Your task to perform on an android device: Clear the shopping cart on target.com. Search for usb-c to usb-a on target.com, select the first entry, add it to the cart, then select checkout. Image 0: 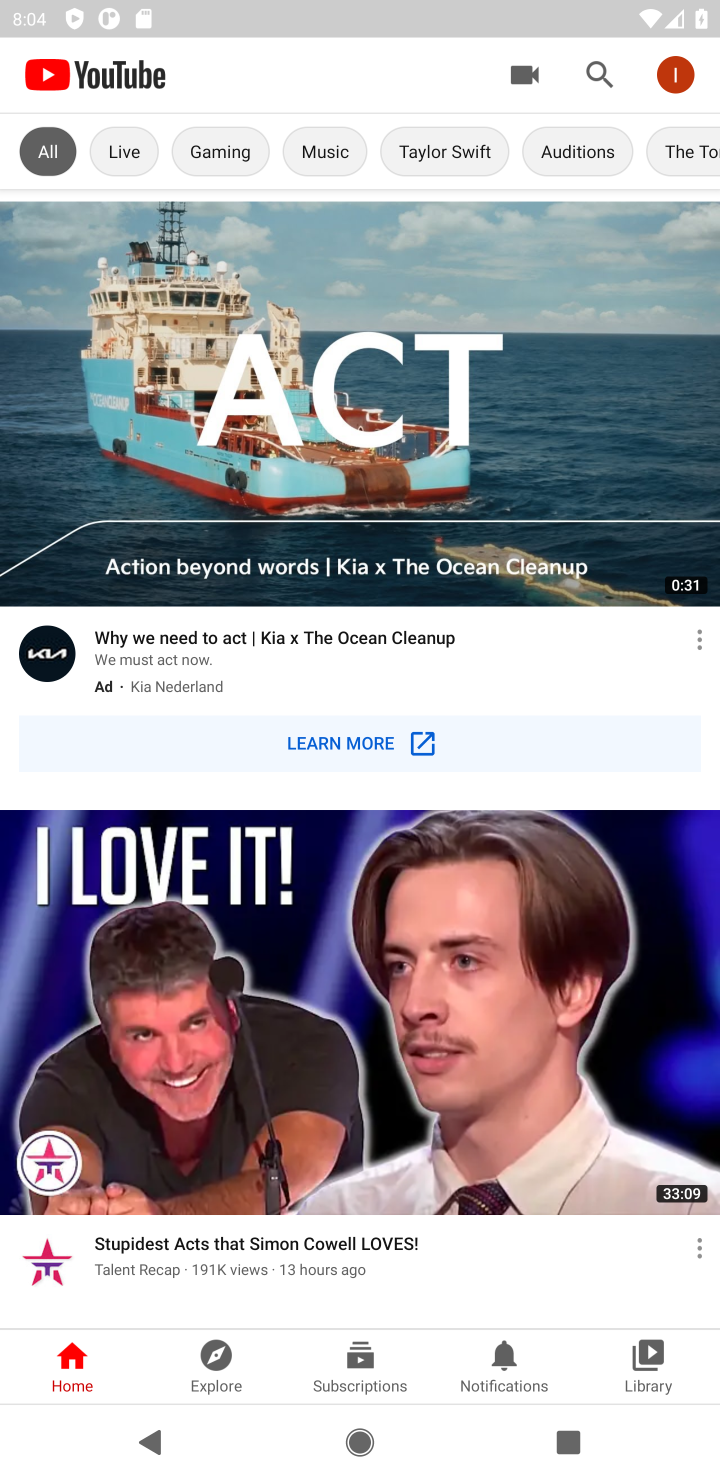
Step 0: press home button
Your task to perform on an android device: Clear the shopping cart on target.com. Search for usb-c to usb-a on target.com, select the first entry, add it to the cart, then select checkout. Image 1: 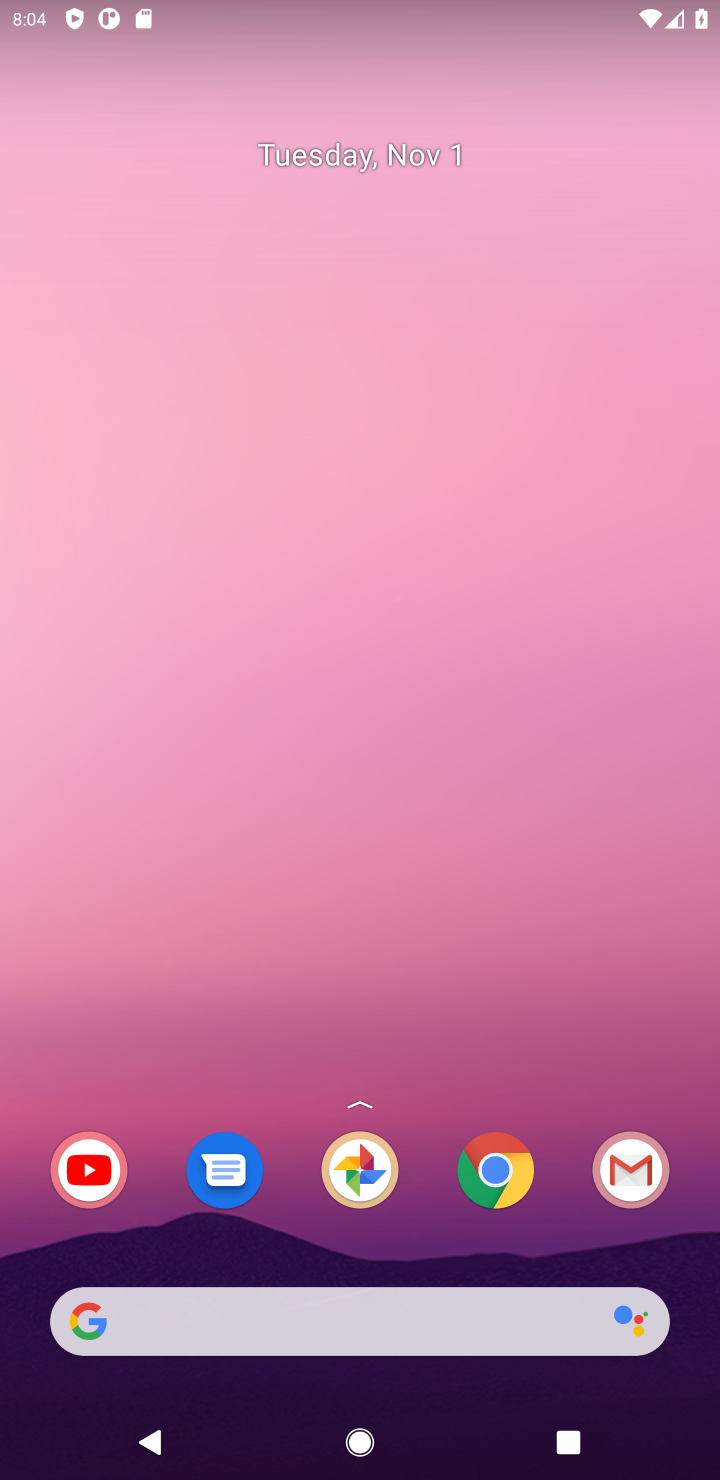
Step 1: click (495, 1168)
Your task to perform on an android device: Clear the shopping cart on target.com. Search for usb-c to usb-a on target.com, select the first entry, add it to the cart, then select checkout. Image 2: 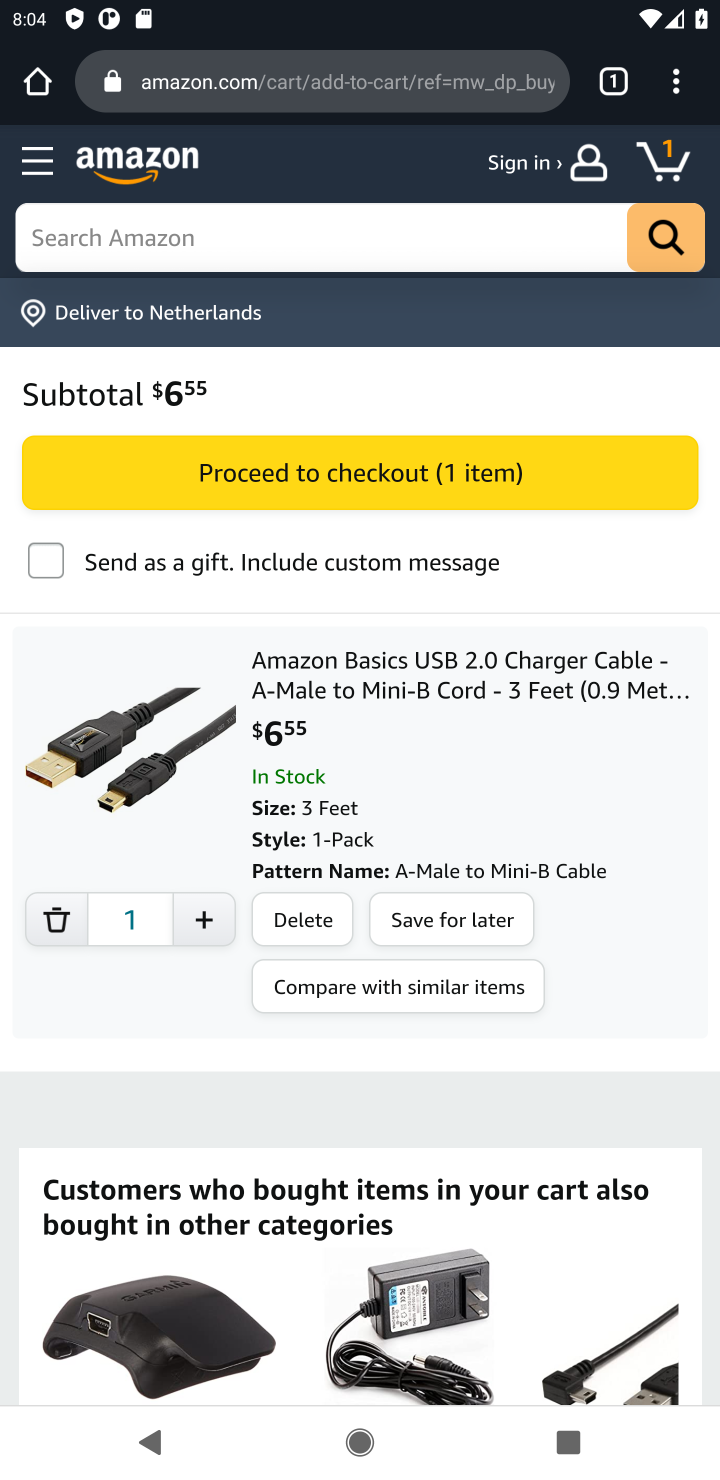
Step 2: click (390, 79)
Your task to perform on an android device: Clear the shopping cart on target.com. Search for usb-c to usb-a on target.com, select the first entry, add it to the cart, then select checkout. Image 3: 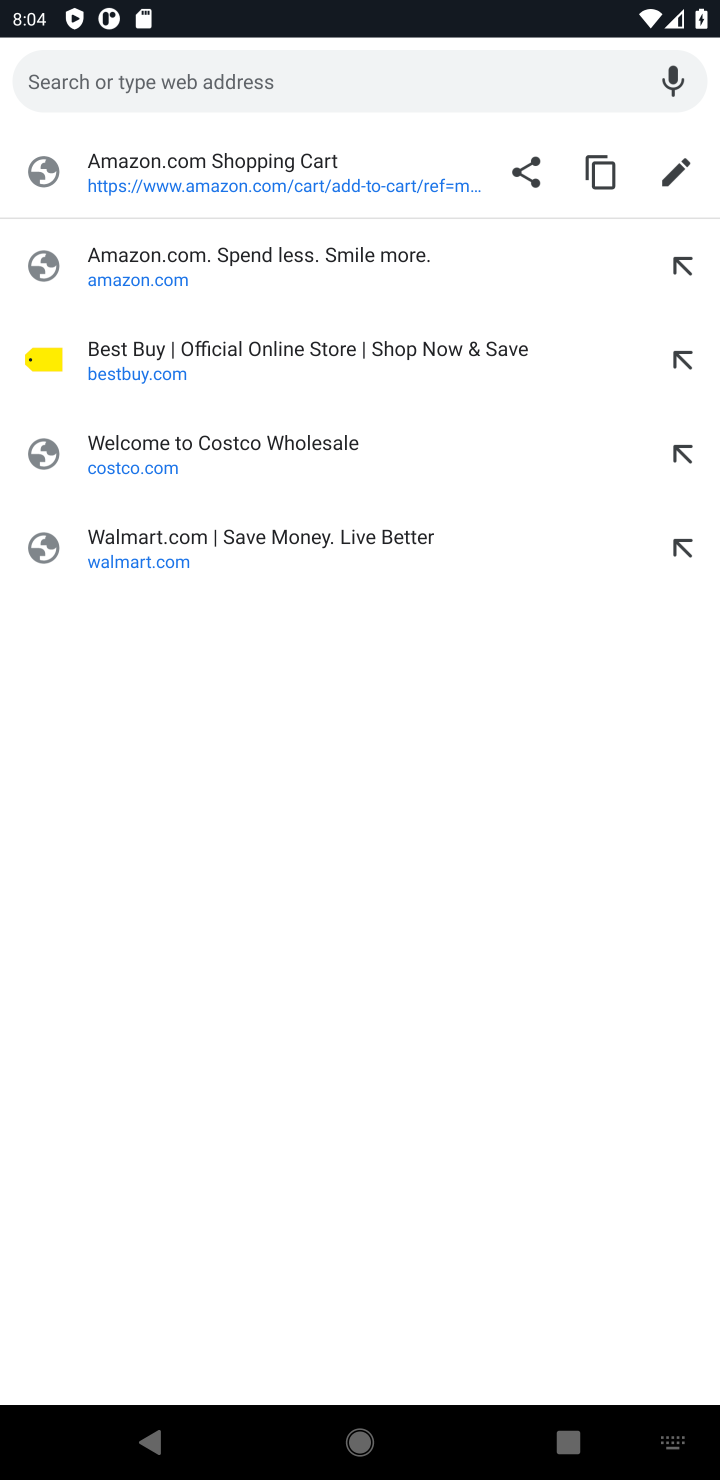
Step 3: type "target.com"
Your task to perform on an android device: Clear the shopping cart on target.com. Search for usb-c to usb-a on target.com, select the first entry, add it to the cart, then select checkout. Image 4: 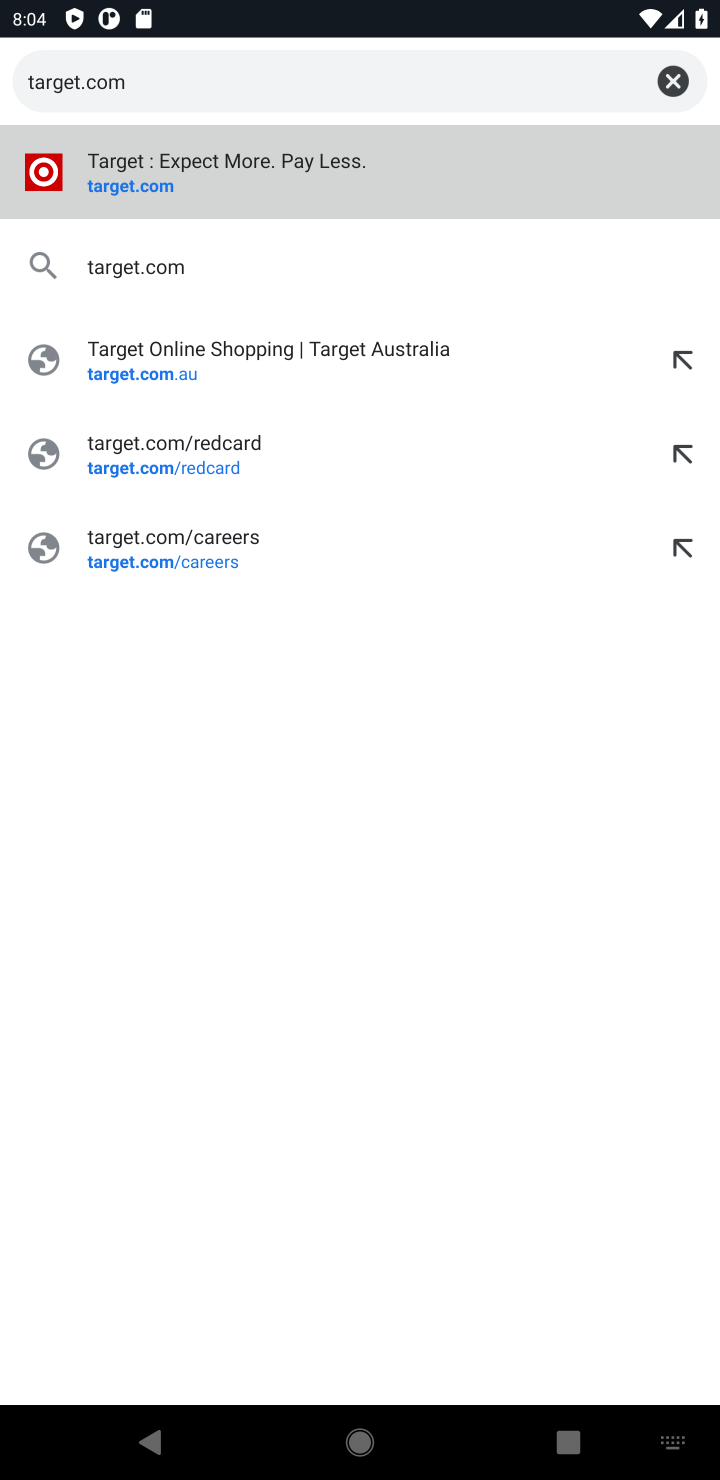
Step 4: press enter
Your task to perform on an android device: Clear the shopping cart on target.com. Search for usb-c to usb-a on target.com, select the first entry, add it to the cart, then select checkout. Image 5: 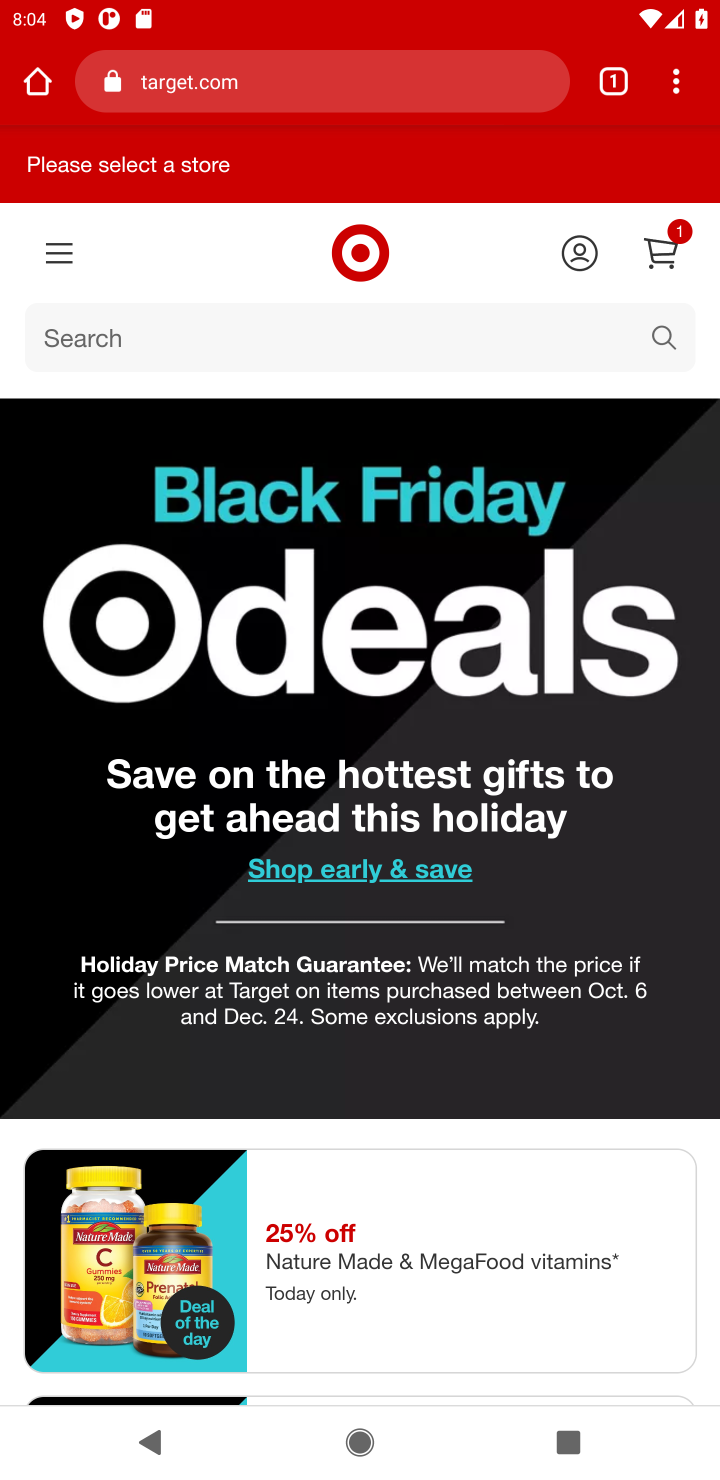
Step 5: drag from (456, 1274) to (523, 1256)
Your task to perform on an android device: Clear the shopping cart on target.com. Search for usb-c to usb-a on target.com, select the first entry, add it to the cart, then select checkout. Image 6: 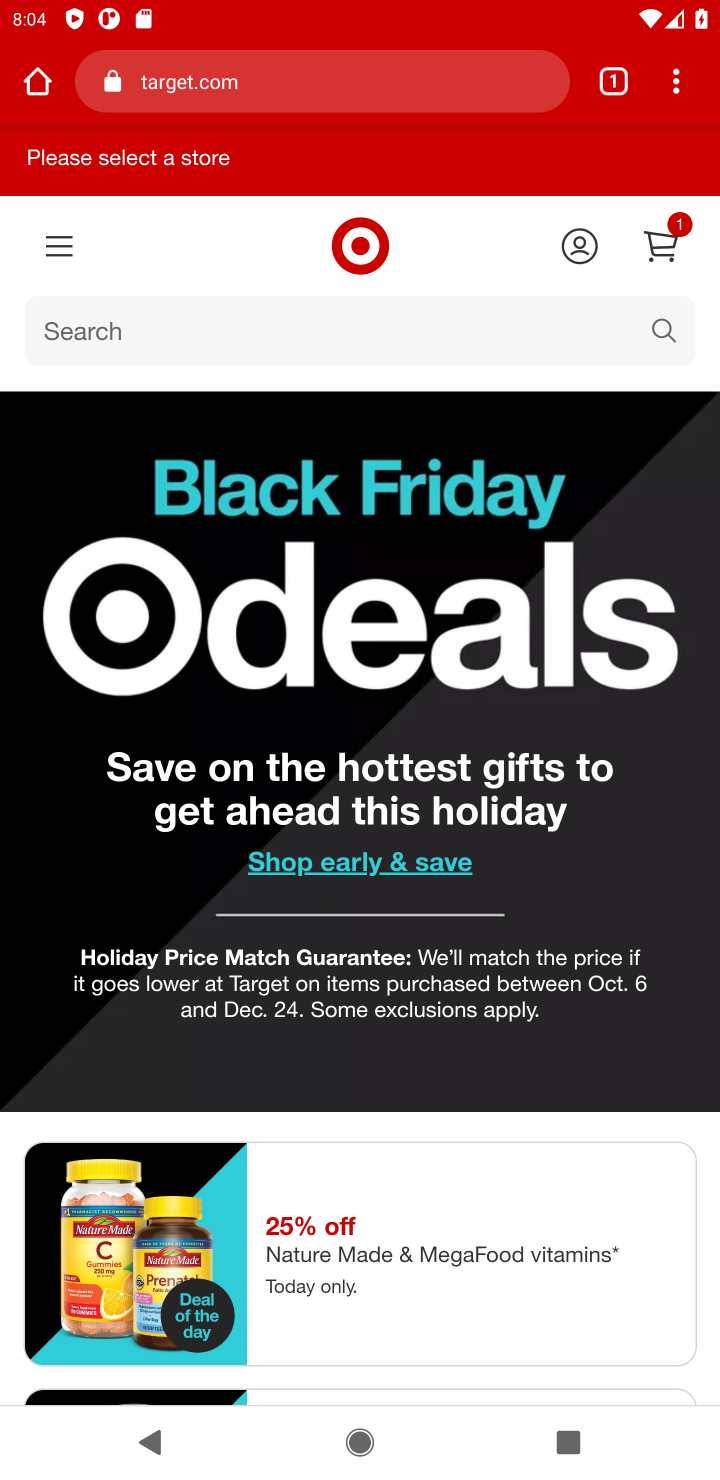
Step 6: click (650, 241)
Your task to perform on an android device: Clear the shopping cart on target.com. Search for usb-c to usb-a on target.com, select the first entry, add it to the cart, then select checkout. Image 7: 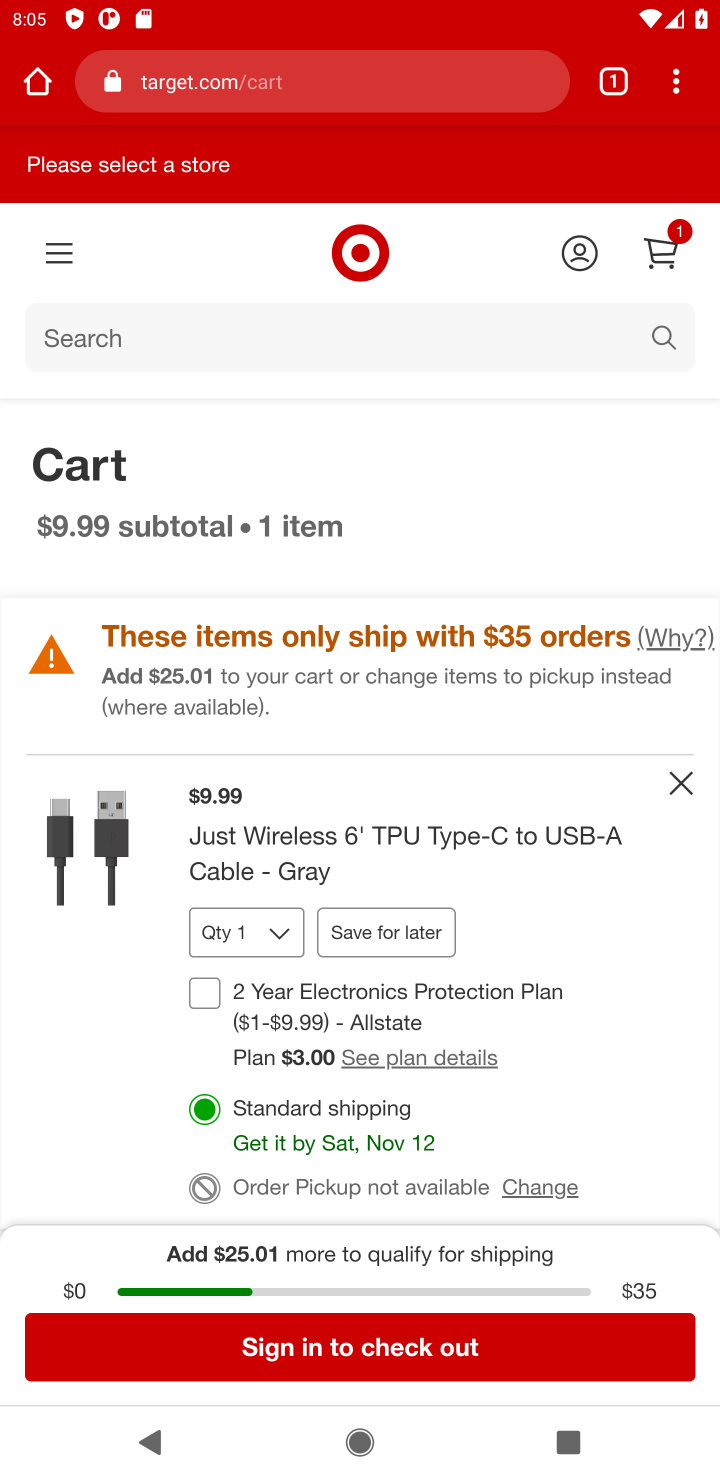
Step 7: click (681, 778)
Your task to perform on an android device: Clear the shopping cart on target.com. Search for usb-c to usb-a on target.com, select the first entry, add it to the cart, then select checkout. Image 8: 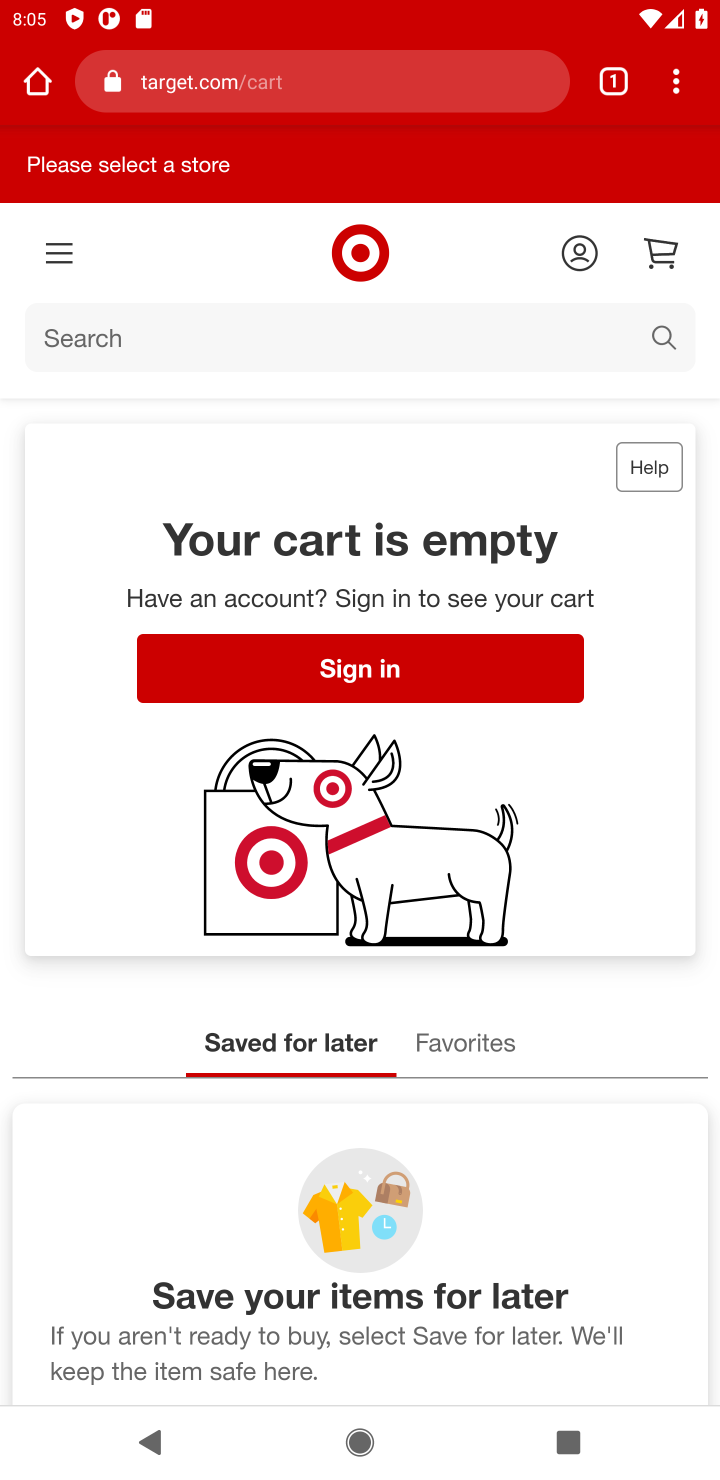
Step 8: click (245, 338)
Your task to perform on an android device: Clear the shopping cart on target.com. Search for usb-c to usb-a on target.com, select the first entry, add it to the cart, then select checkout. Image 9: 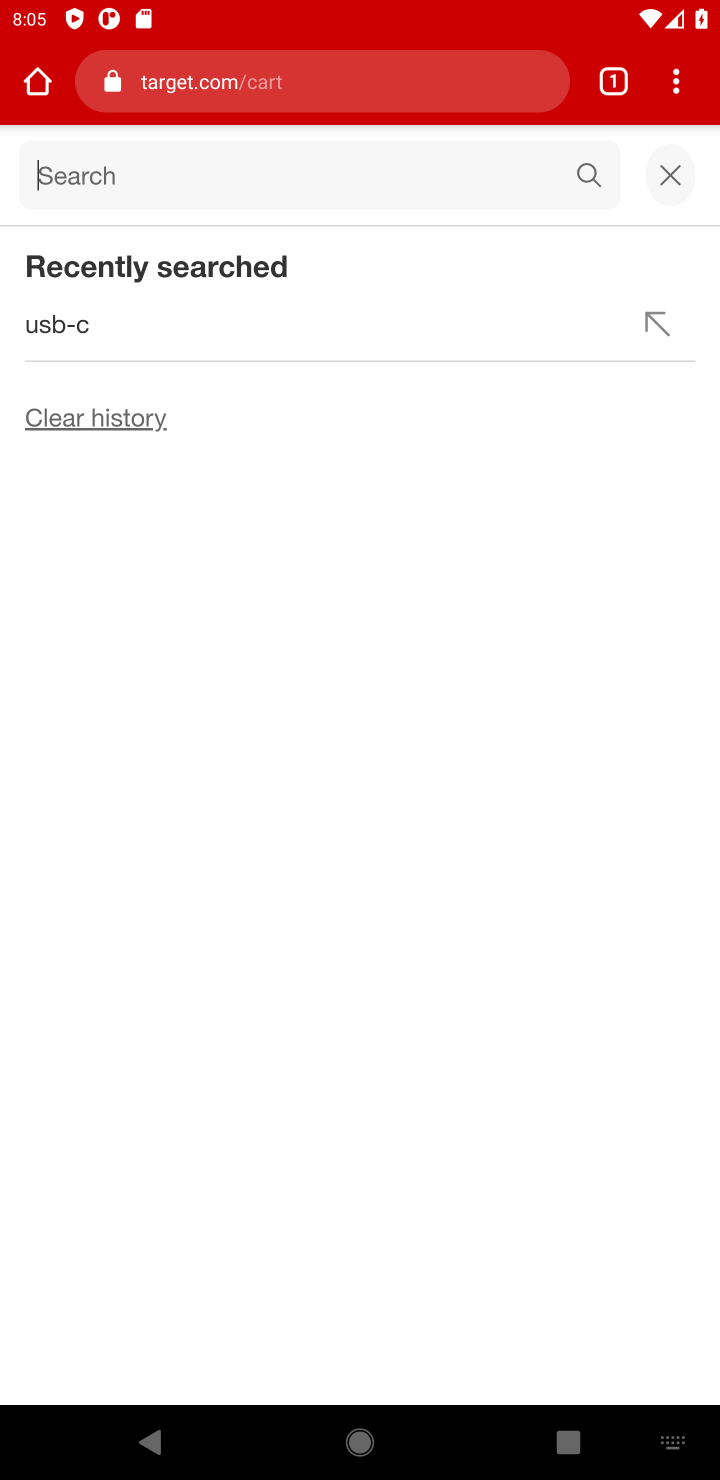
Step 9: type "usb-c to usb-a"
Your task to perform on an android device: Clear the shopping cart on target.com. Search for usb-c to usb-a on target.com, select the first entry, add it to the cart, then select checkout. Image 10: 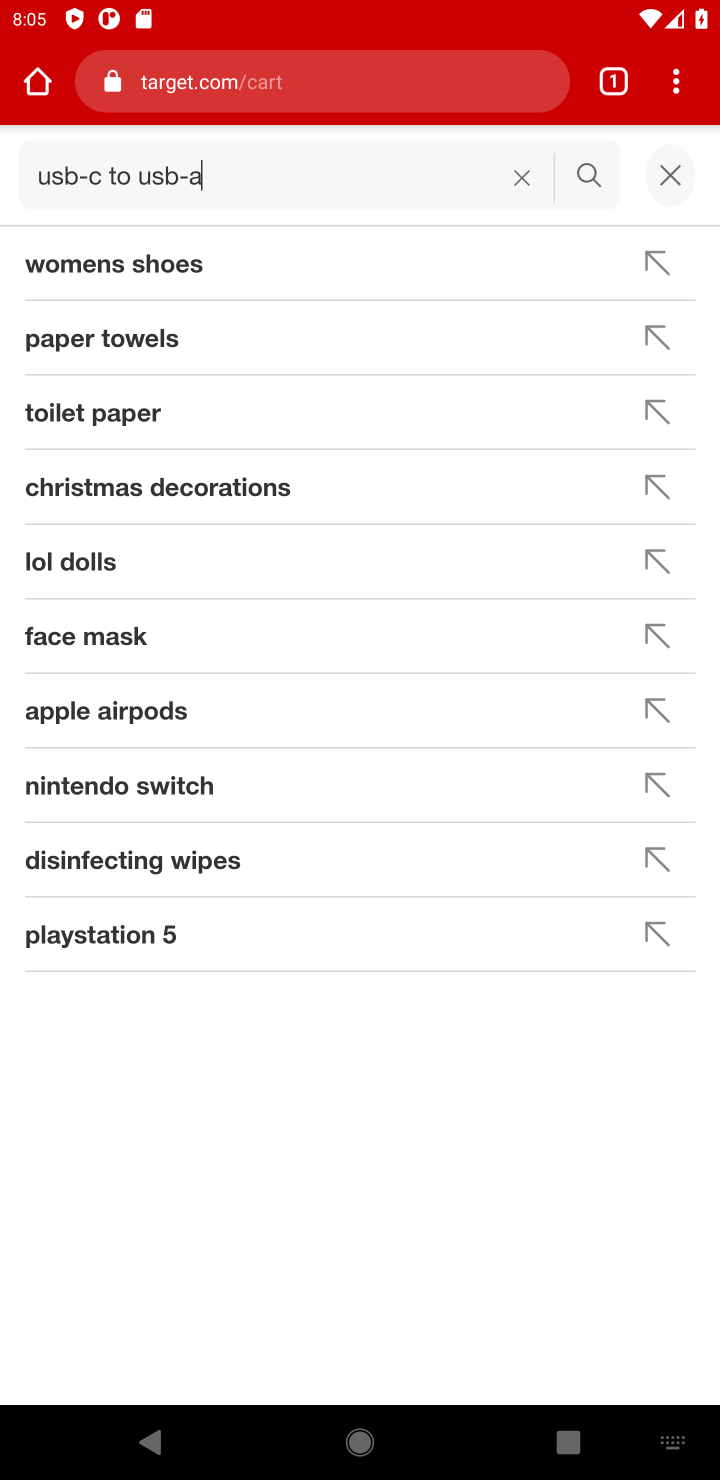
Step 10: type ""
Your task to perform on an android device: Clear the shopping cart on target.com. Search for usb-c to usb-a on target.com, select the first entry, add it to the cart, then select checkout. Image 11: 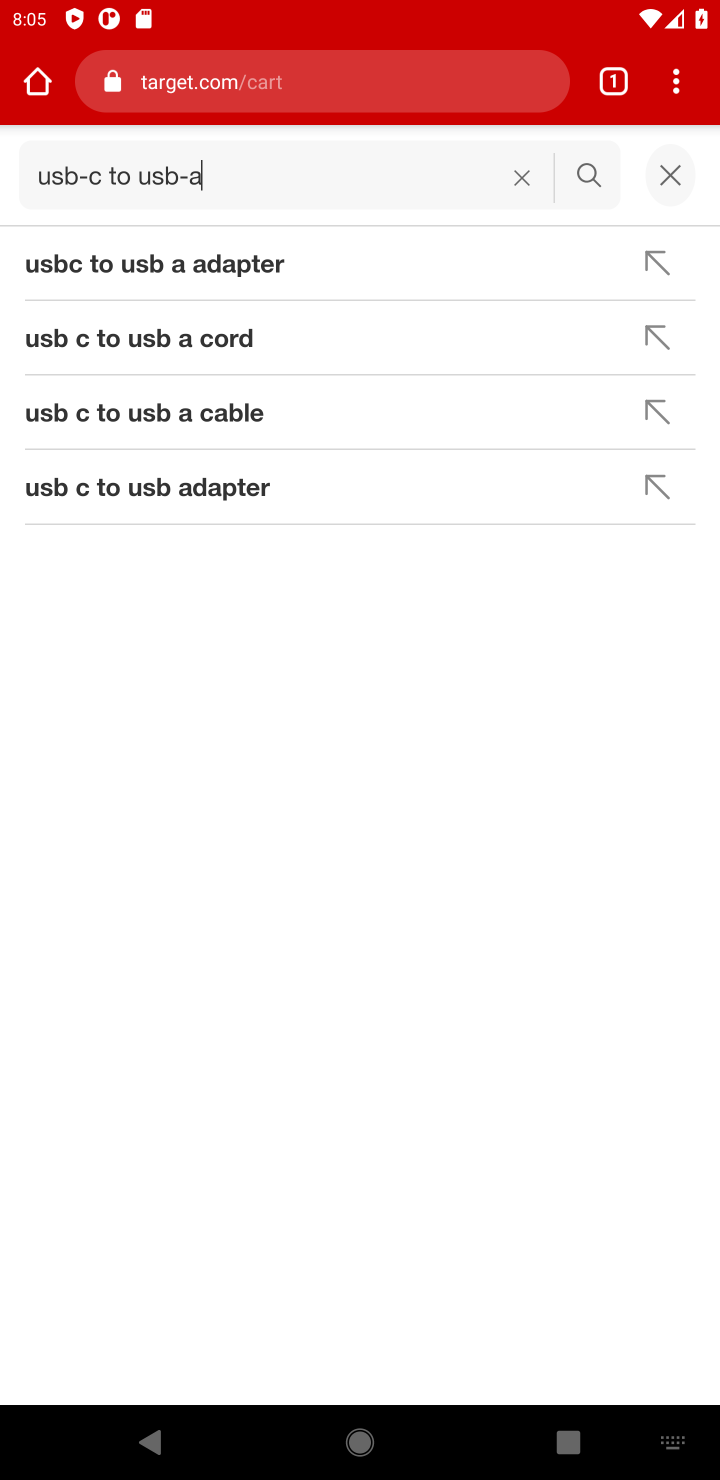
Step 11: press enter
Your task to perform on an android device: Clear the shopping cart on target.com. Search for usb-c to usb-a on target.com, select the first entry, add it to the cart, then select checkout. Image 12: 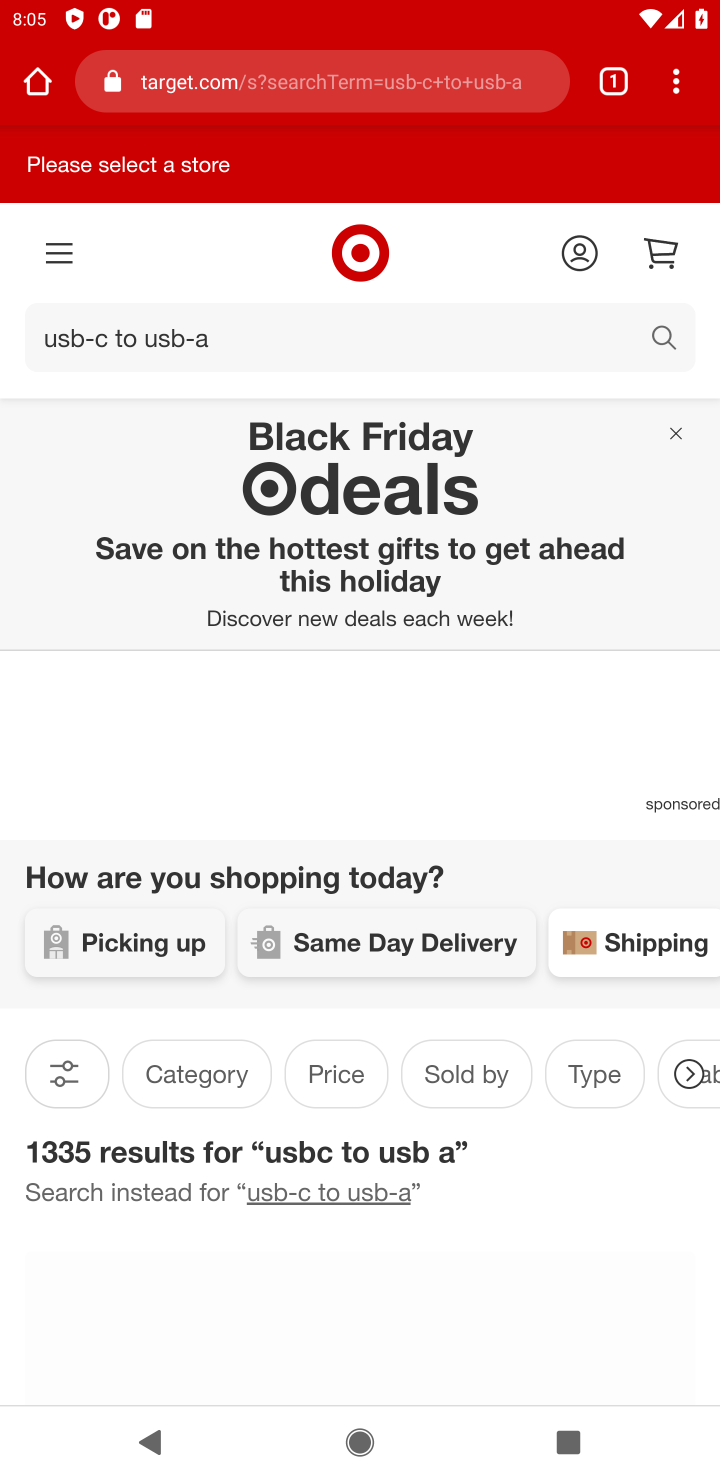
Step 12: drag from (484, 1190) to (463, 426)
Your task to perform on an android device: Clear the shopping cart on target.com. Search for usb-c to usb-a on target.com, select the first entry, add it to the cart, then select checkout. Image 13: 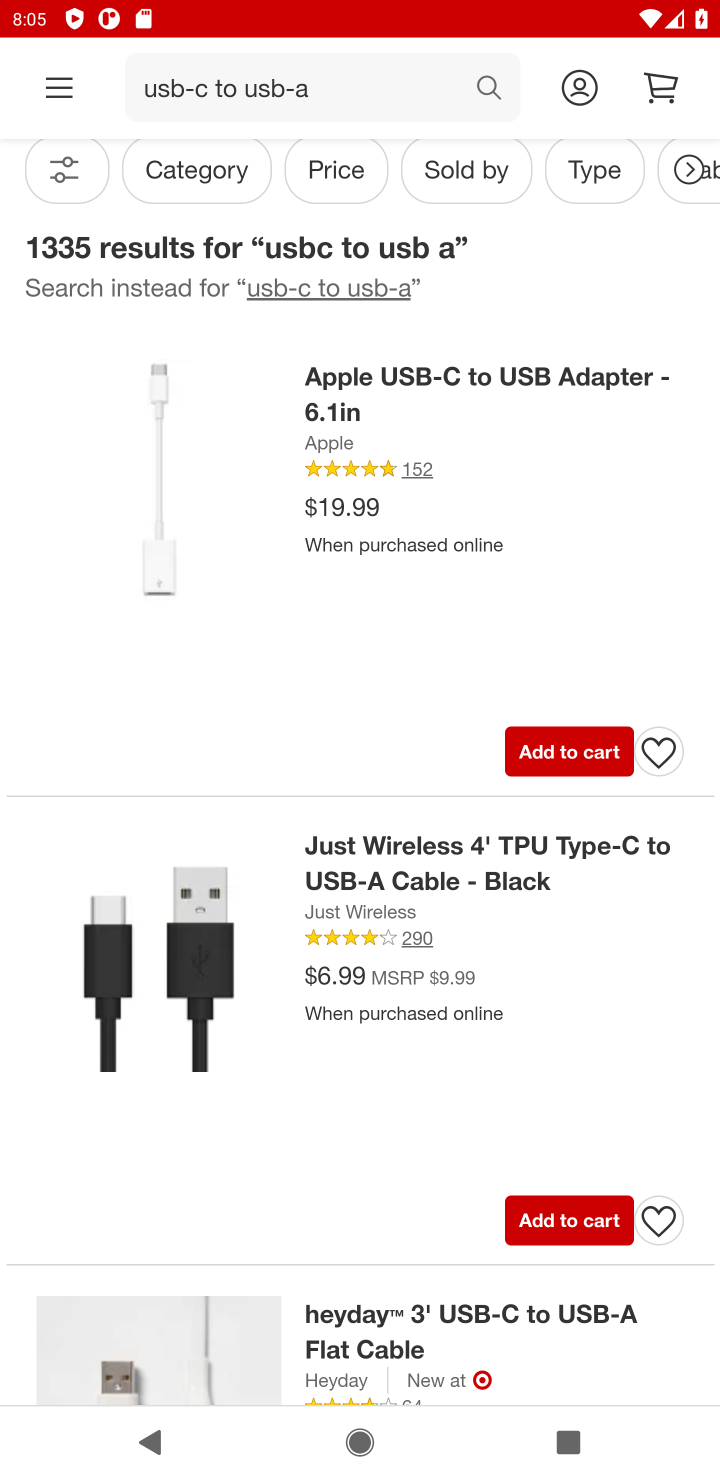
Step 13: click (465, 982)
Your task to perform on an android device: Clear the shopping cart on target.com. Search for usb-c to usb-a on target.com, select the first entry, add it to the cart, then select checkout. Image 14: 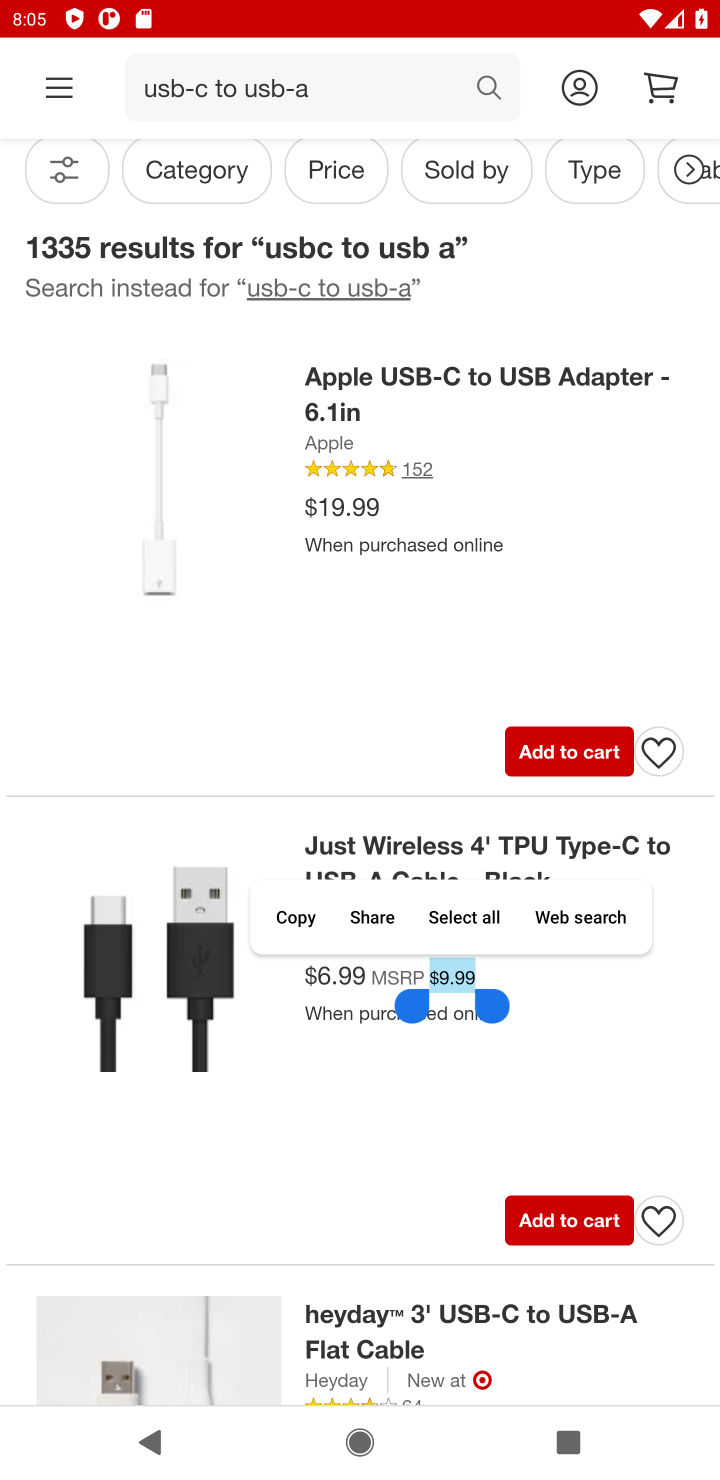
Step 14: drag from (571, 748) to (576, 467)
Your task to perform on an android device: Clear the shopping cart on target.com. Search for usb-c to usb-a on target.com, select the first entry, add it to the cart, then select checkout. Image 15: 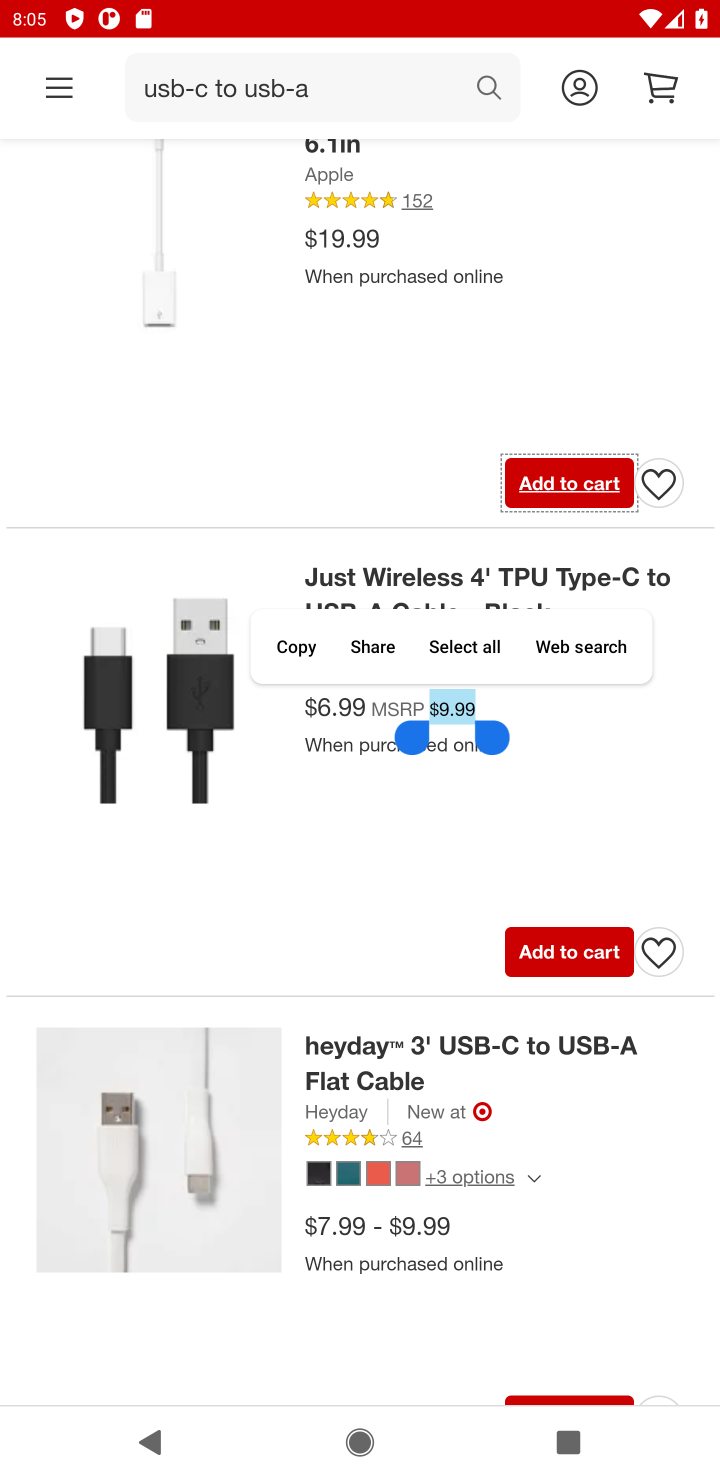
Step 15: drag from (349, 135) to (419, 450)
Your task to perform on an android device: Clear the shopping cart on target.com. Search for usb-c to usb-a on target.com, select the first entry, add it to the cart, then select checkout. Image 16: 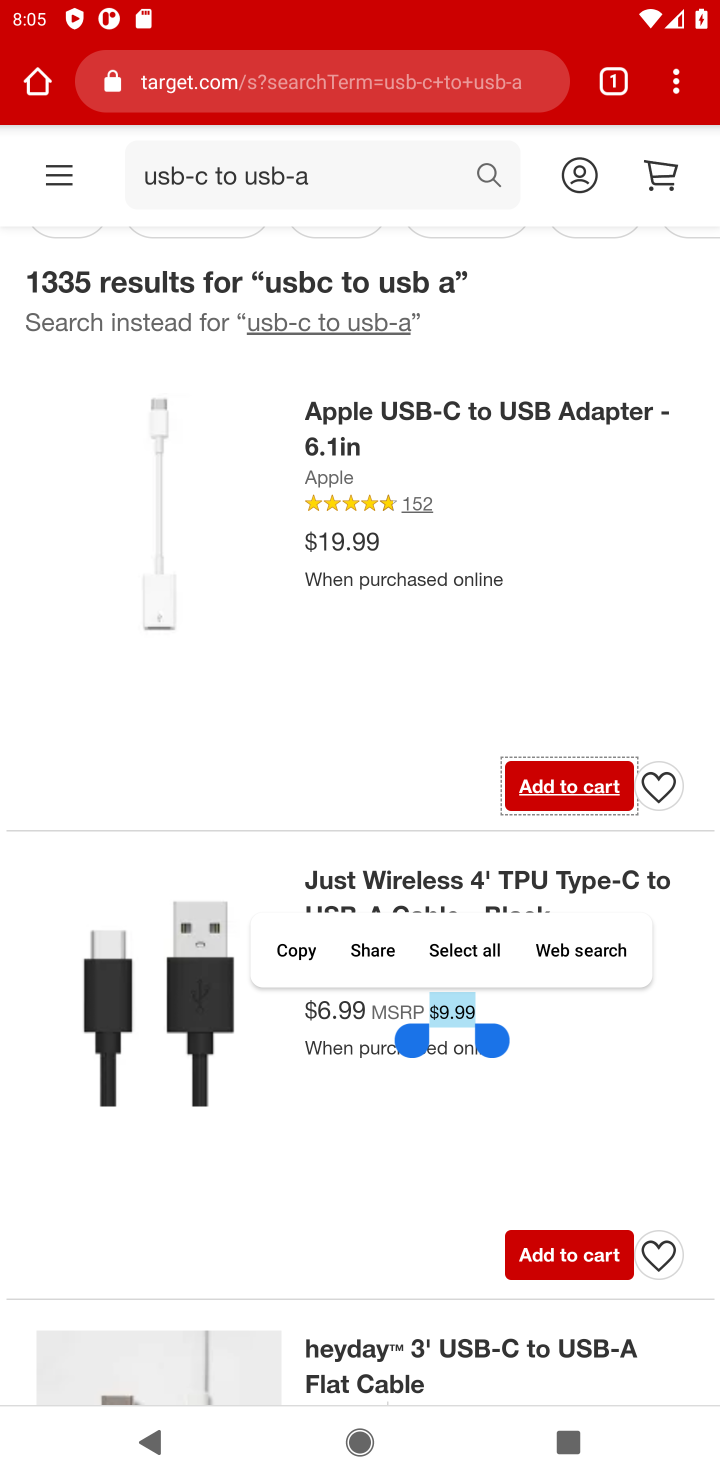
Step 16: click (346, 451)
Your task to perform on an android device: Clear the shopping cart on target.com. Search for usb-c to usb-a on target.com, select the first entry, add it to the cart, then select checkout. Image 17: 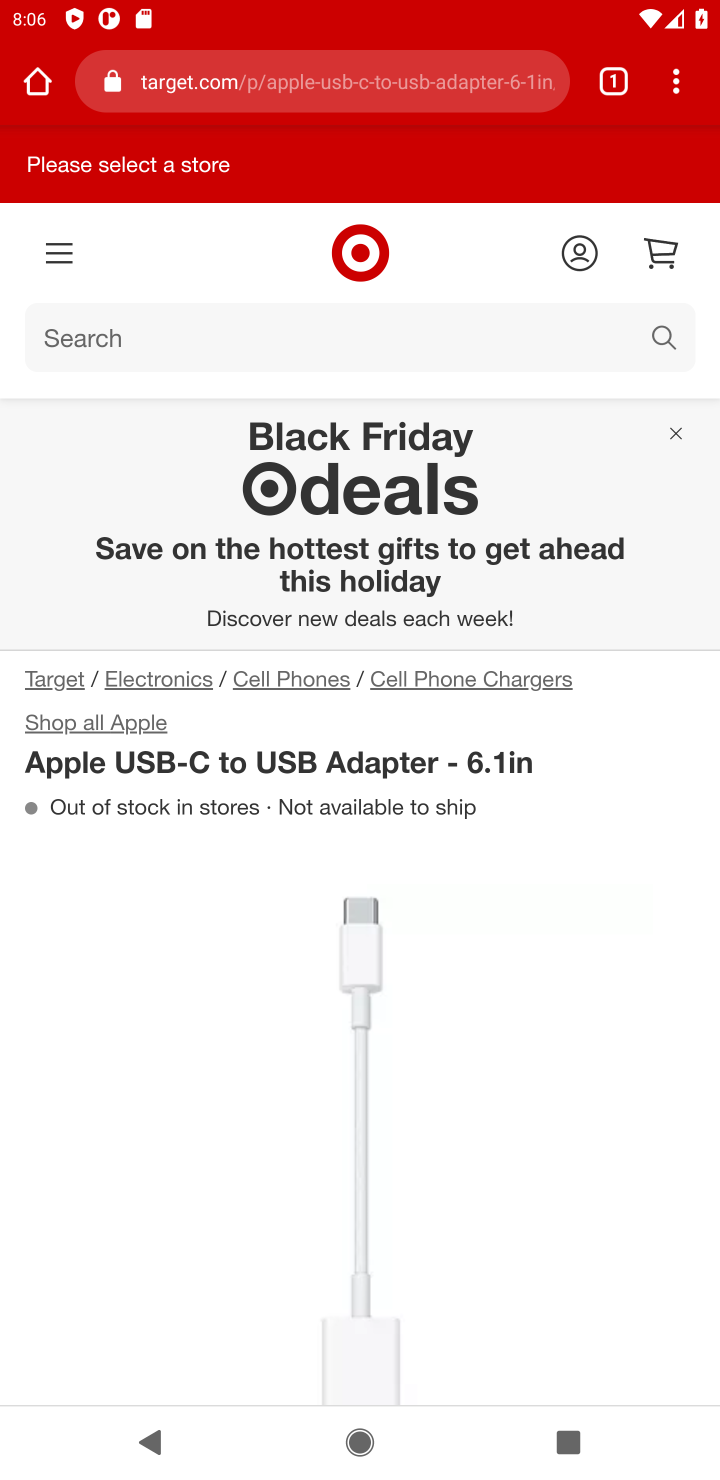
Step 17: drag from (514, 1132) to (464, 406)
Your task to perform on an android device: Clear the shopping cart on target.com. Search for usb-c to usb-a on target.com, select the first entry, add it to the cart, then select checkout. Image 18: 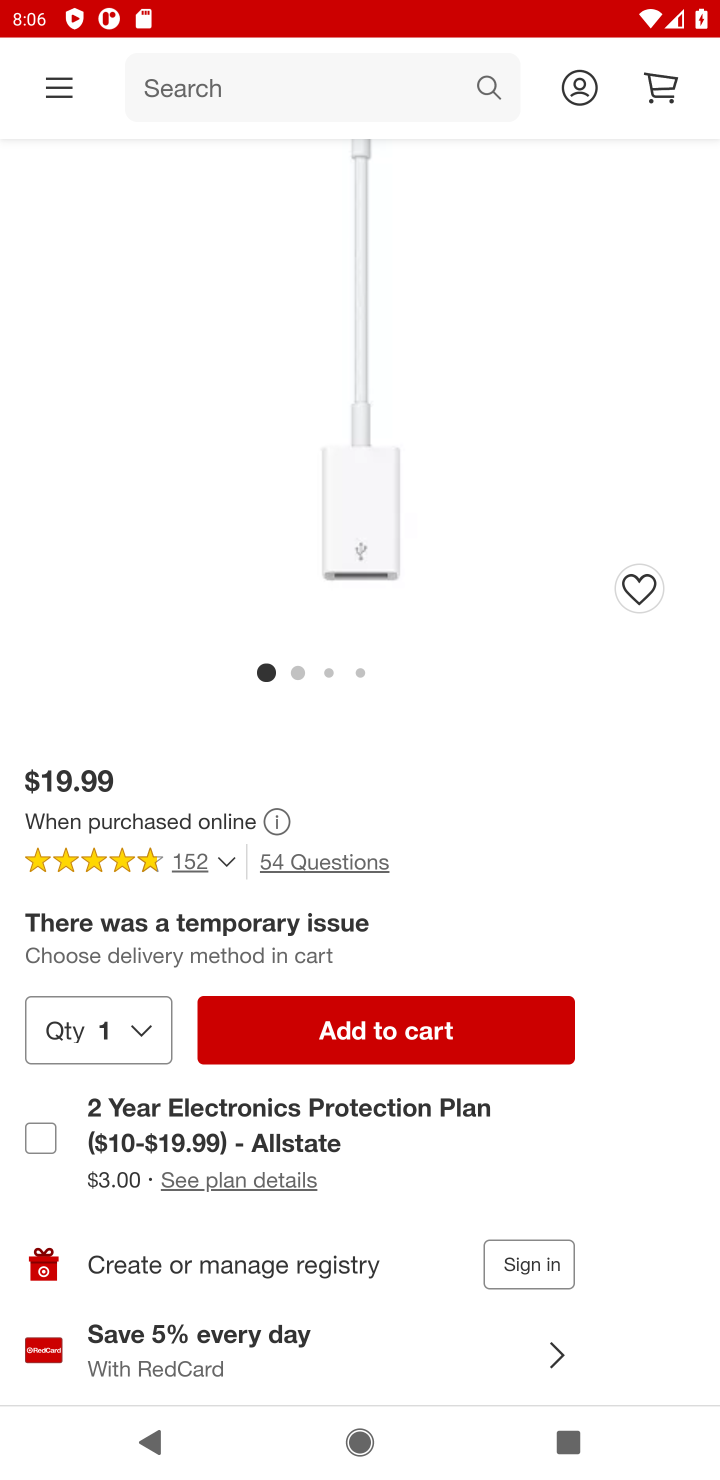
Step 18: click (416, 1016)
Your task to perform on an android device: Clear the shopping cart on target.com. Search for usb-c to usb-a on target.com, select the first entry, add it to the cart, then select checkout. Image 19: 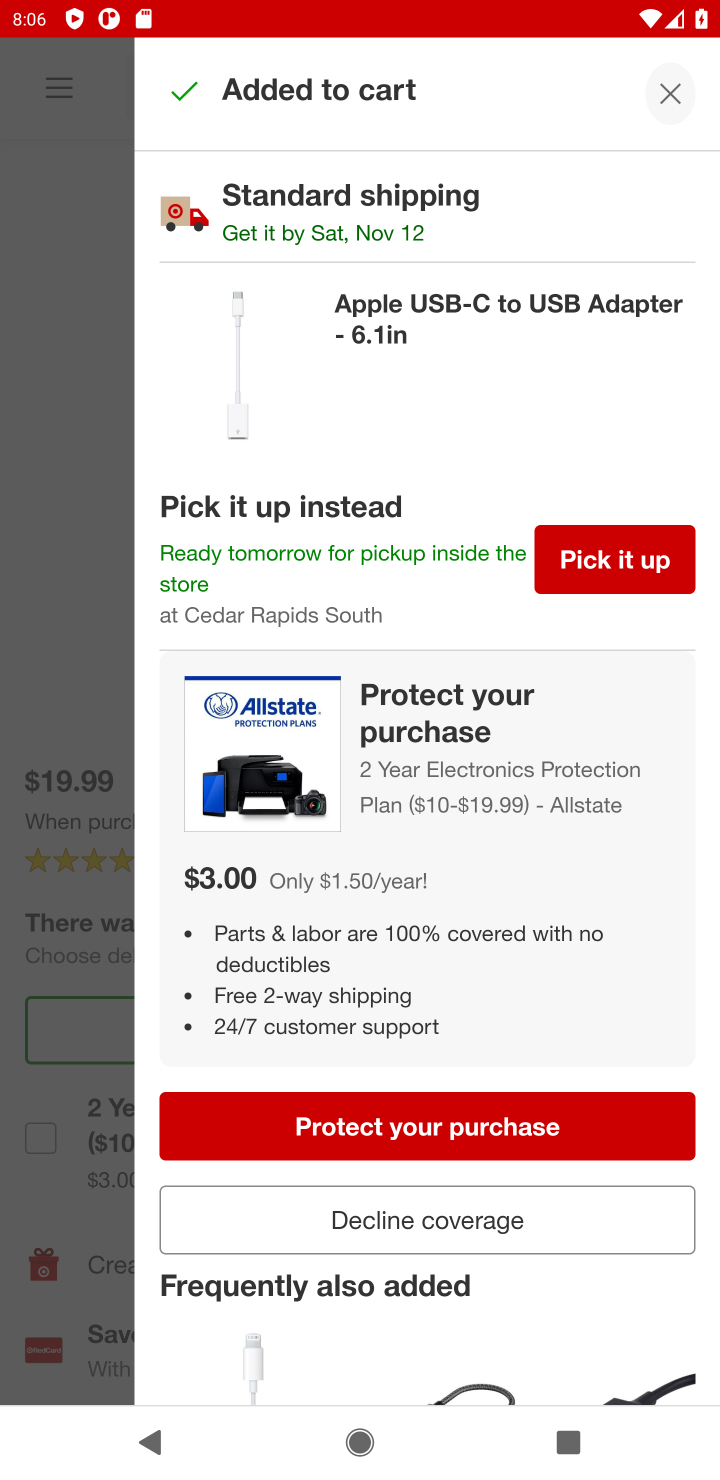
Step 19: click (479, 1235)
Your task to perform on an android device: Clear the shopping cart on target.com. Search for usb-c to usb-a on target.com, select the first entry, add it to the cart, then select checkout. Image 20: 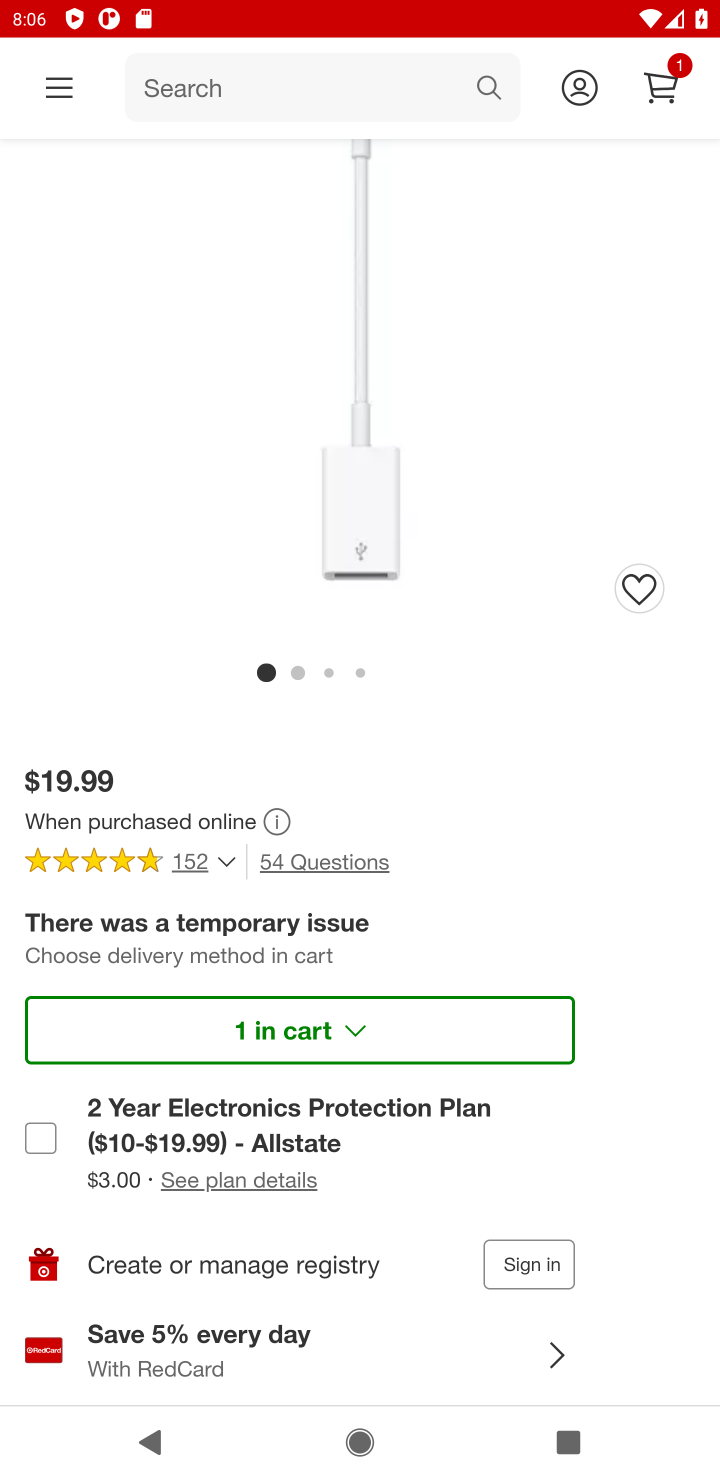
Step 20: click (665, 86)
Your task to perform on an android device: Clear the shopping cart on target.com. Search for usb-c to usb-a on target.com, select the first entry, add it to the cart, then select checkout. Image 21: 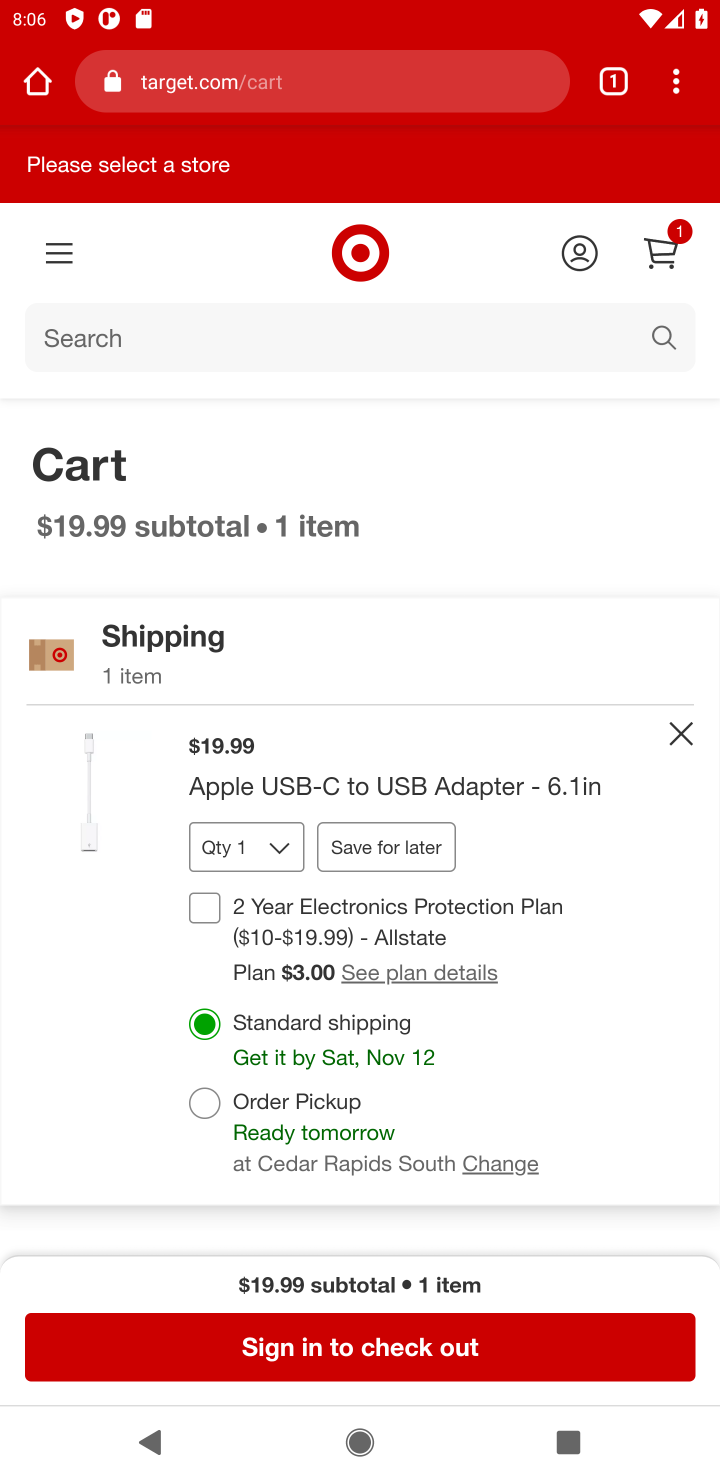
Step 21: drag from (323, 882) to (325, 770)
Your task to perform on an android device: Clear the shopping cart on target.com. Search for usb-c to usb-a on target.com, select the first entry, add it to the cart, then select checkout. Image 22: 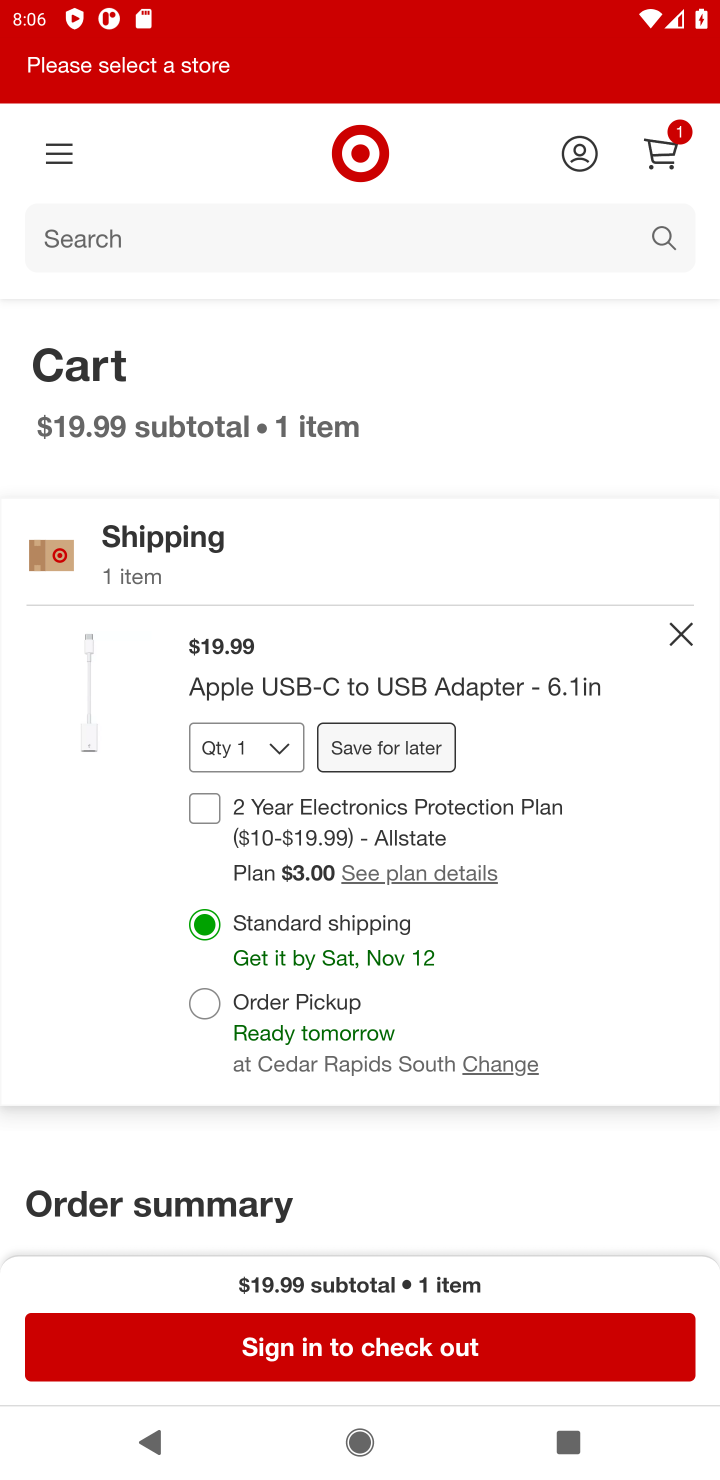
Step 22: click (359, 1334)
Your task to perform on an android device: Clear the shopping cart on target.com. Search for usb-c to usb-a on target.com, select the first entry, add it to the cart, then select checkout. Image 23: 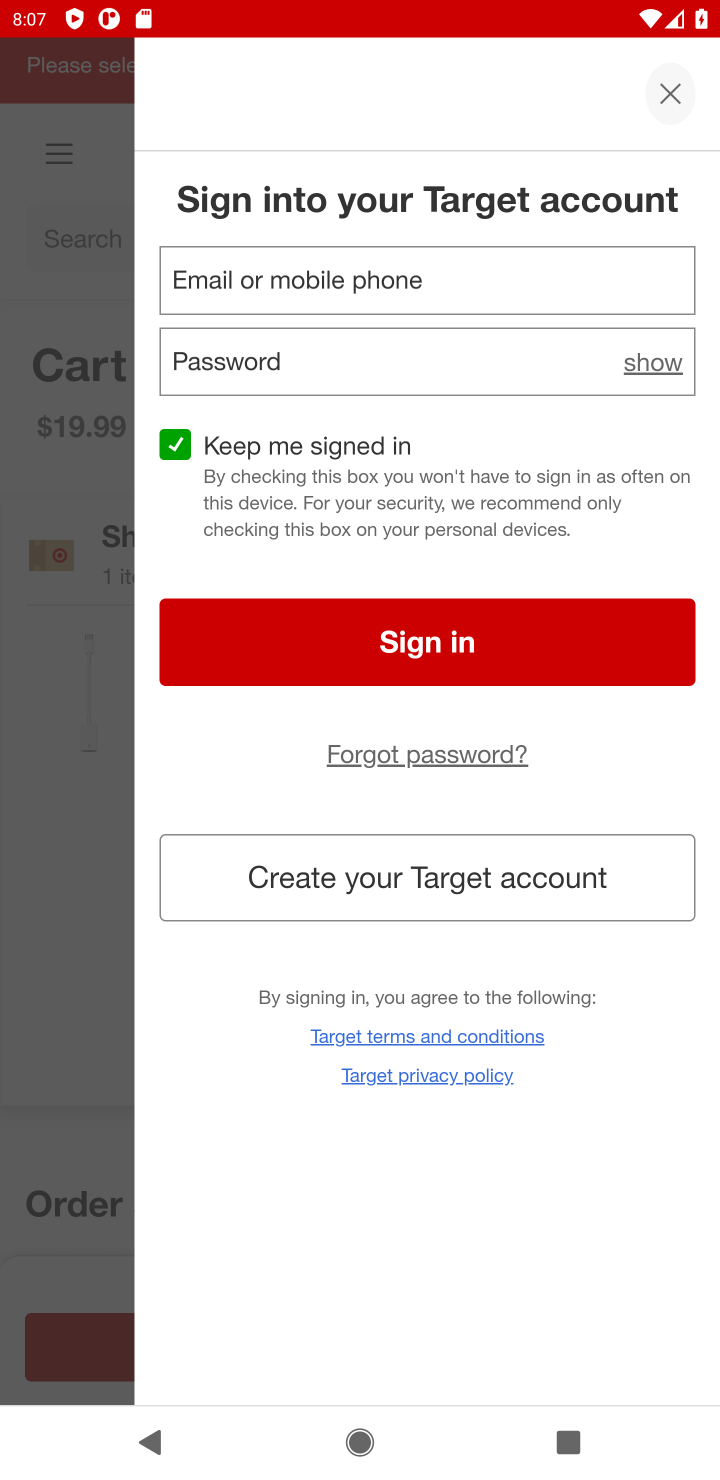
Step 23: task complete